Your task to perform on an android device: Go to ESPN.com Image 0: 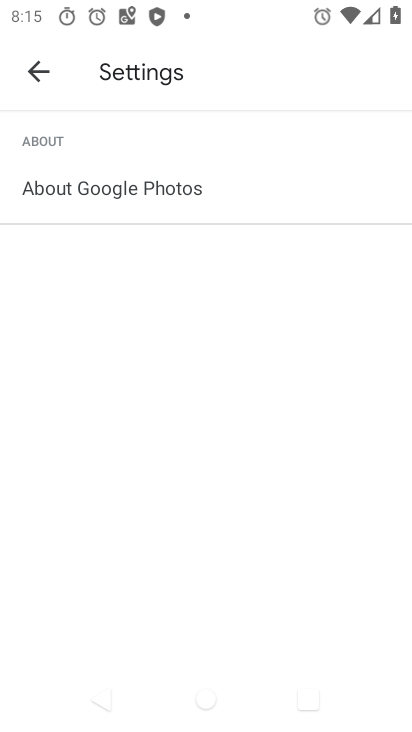
Step 0: press home button
Your task to perform on an android device: Go to ESPN.com Image 1: 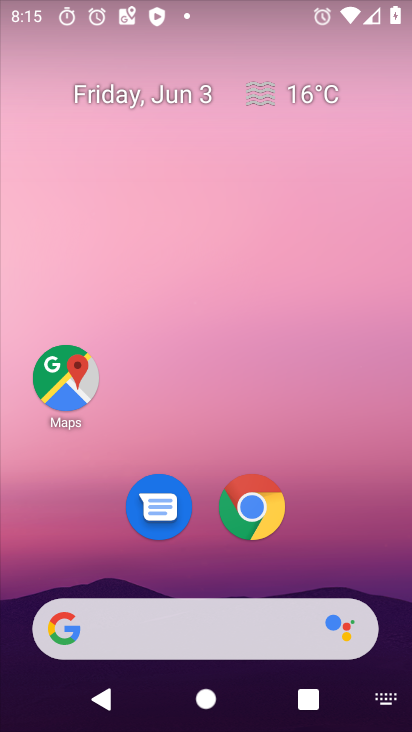
Step 1: click (256, 500)
Your task to perform on an android device: Go to ESPN.com Image 2: 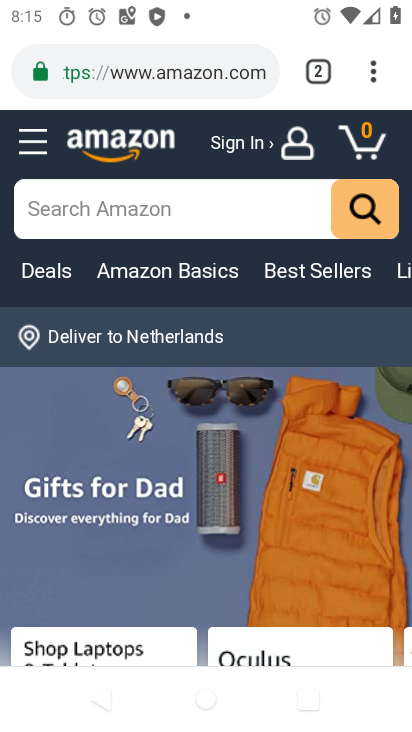
Step 2: click (328, 76)
Your task to perform on an android device: Go to ESPN.com Image 3: 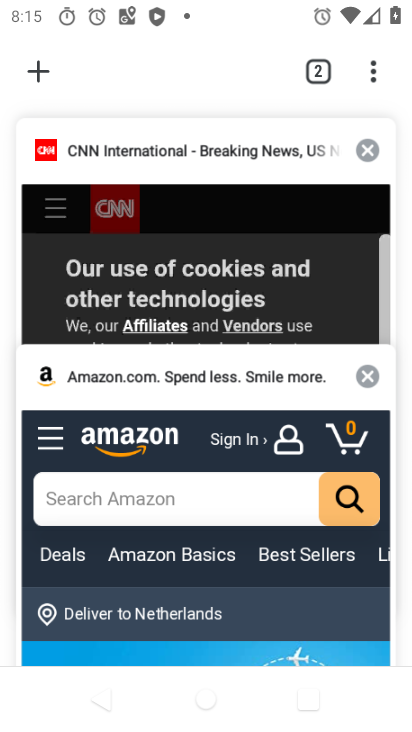
Step 3: click (43, 66)
Your task to perform on an android device: Go to ESPN.com Image 4: 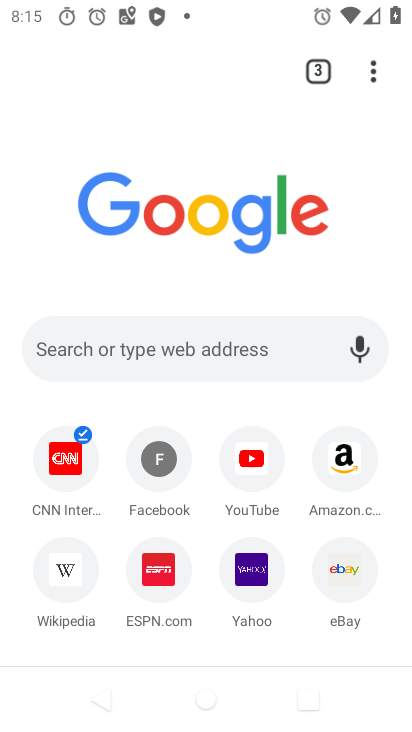
Step 4: click (161, 580)
Your task to perform on an android device: Go to ESPN.com Image 5: 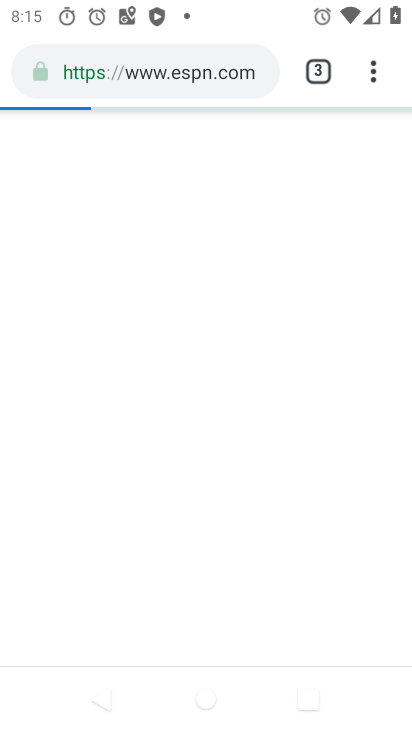
Step 5: task complete